Your task to perform on an android device: toggle translation in the chrome app Image 0: 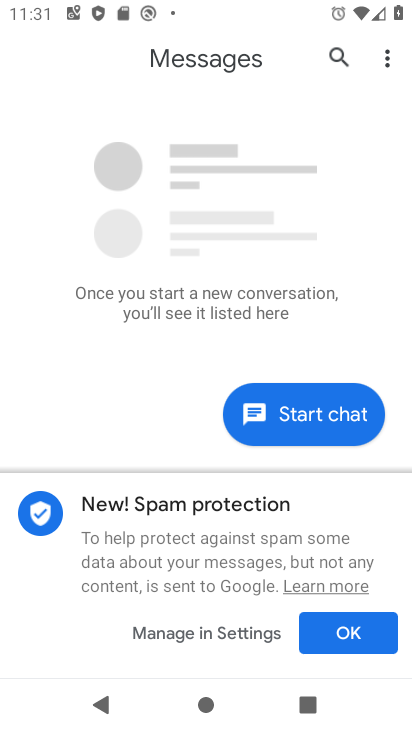
Step 0: press home button
Your task to perform on an android device: toggle translation in the chrome app Image 1: 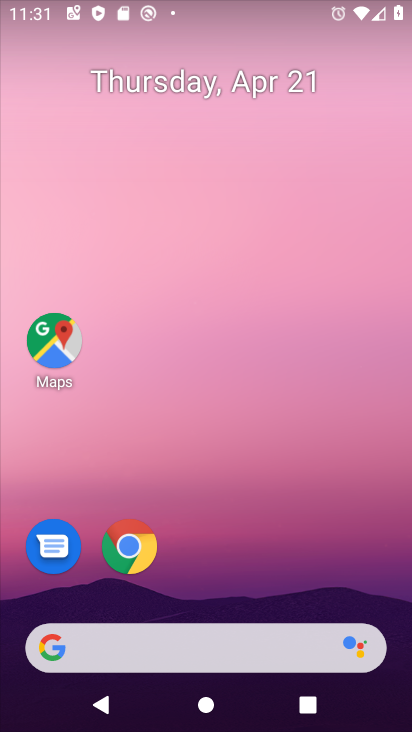
Step 1: click (133, 552)
Your task to perform on an android device: toggle translation in the chrome app Image 2: 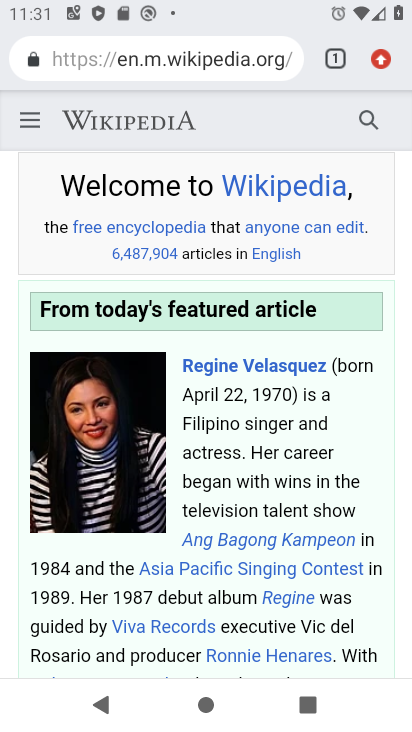
Step 2: click (383, 58)
Your task to perform on an android device: toggle translation in the chrome app Image 3: 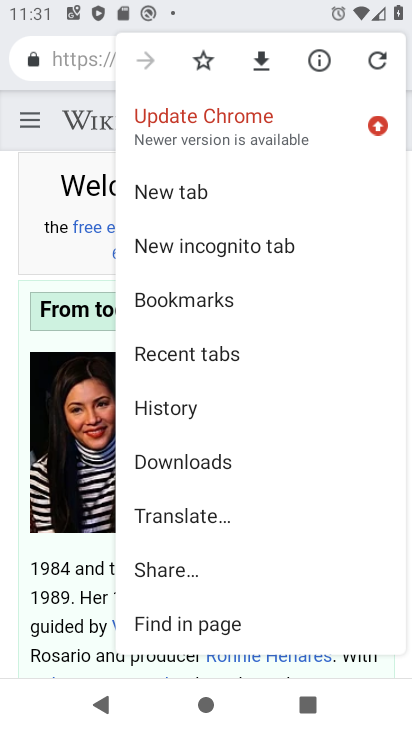
Step 3: drag from (230, 502) to (240, 158)
Your task to perform on an android device: toggle translation in the chrome app Image 4: 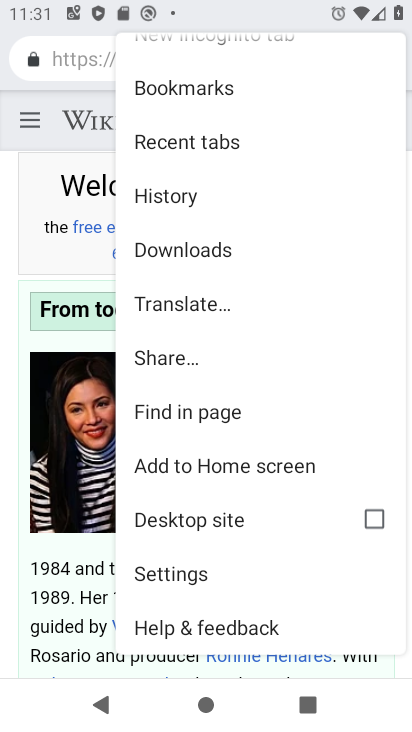
Step 4: click (186, 576)
Your task to perform on an android device: toggle translation in the chrome app Image 5: 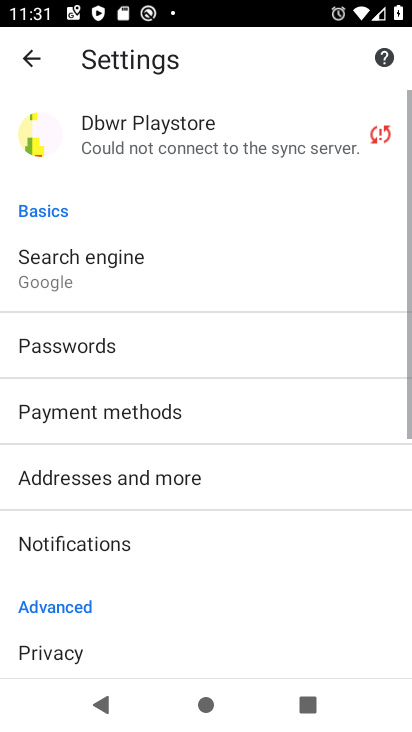
Step 5: drag from (224, 575) to (198, 104)
Your task to perform on an android device: toggle translation in the chrome app Image 6: 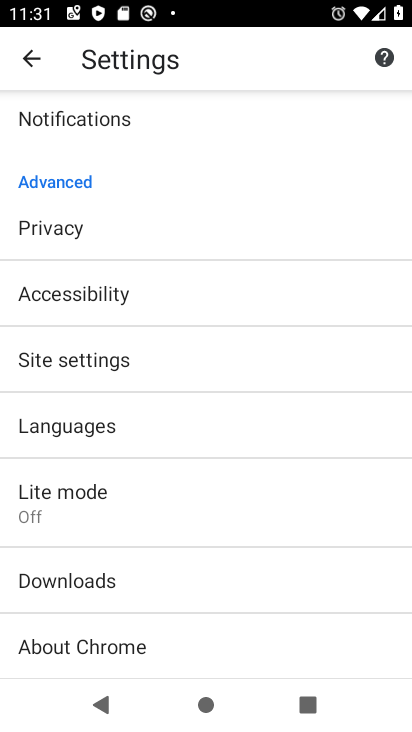
Step 6: click (85, 424)
Your task to perform on an android device: toggle translation in the chrome app Image 7: 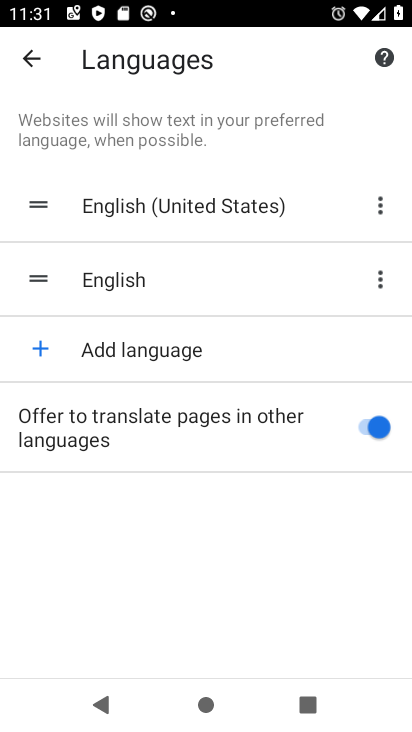
Step 7: click (374, 424)
Your task to perform on an android device: toggle translation in the chrome app Image 8: 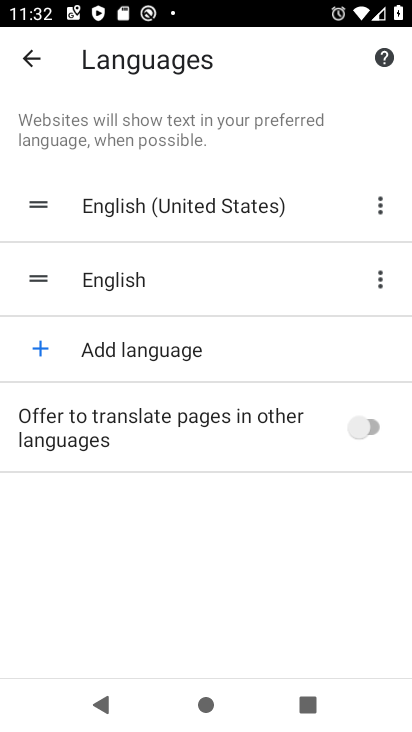
Step 8: task complete